Your task to perform on an android device: Go to privacy settings Image 0: 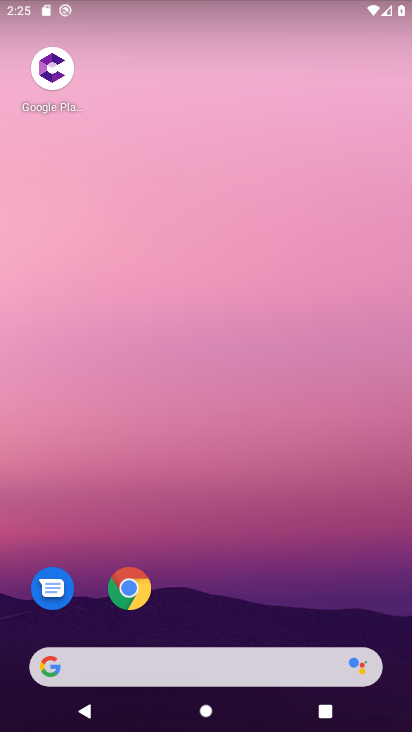
Step 0: drag from (284, 601) to (231, 254)
Your task to perform on an android device: Go to privacy settings Image 1: 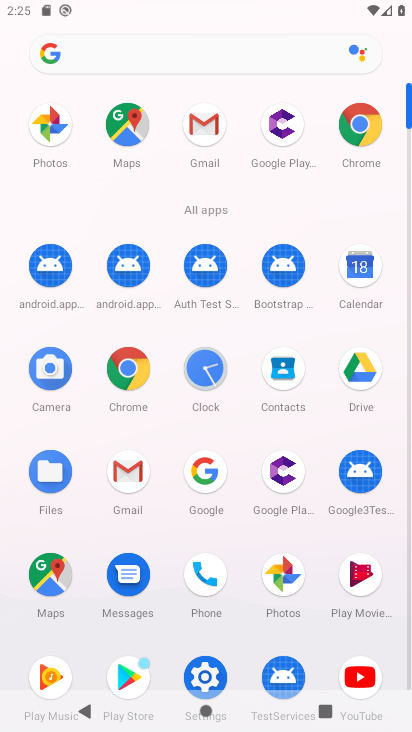
Step 1: click (203, 675)
Your task to perform on an android device: Go to privacy settings Image 2: 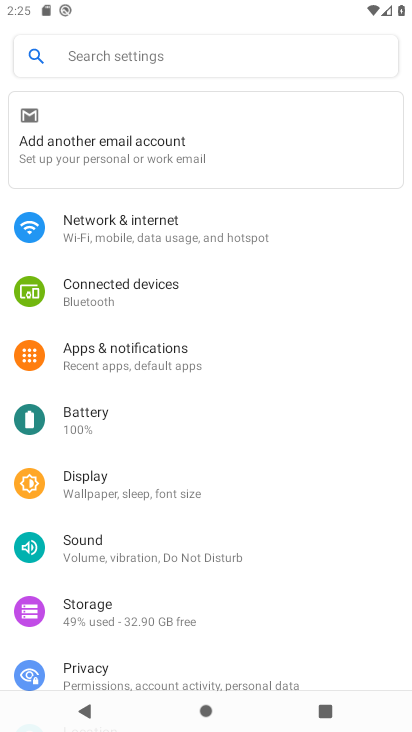
Step 2: click (129, 670)
Your task to perform on an android device: Go to privacy settings Image 3: 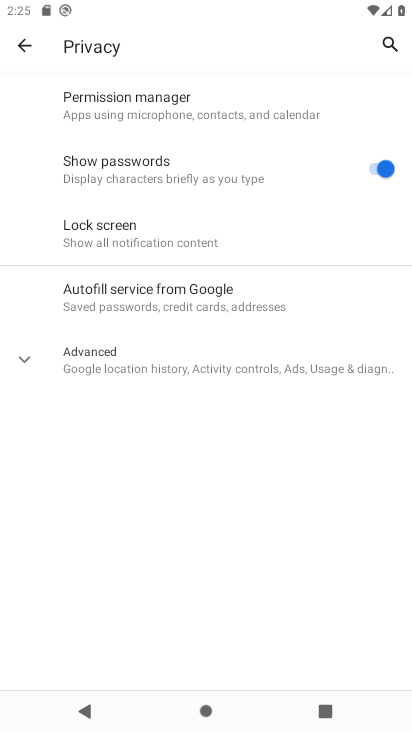
Step 3: task complete